Your task to perform on an android device: turn smart compose on in the gmail app Image 0: 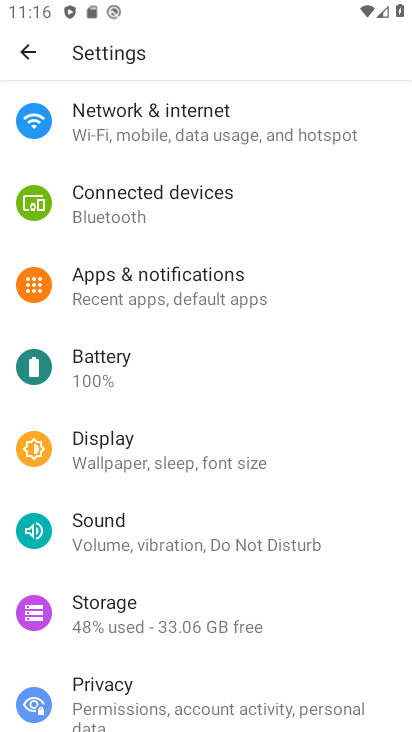
Step 0: press home button
Your task to perform on an android device: turn smart compose on in the gmail app Image 1: 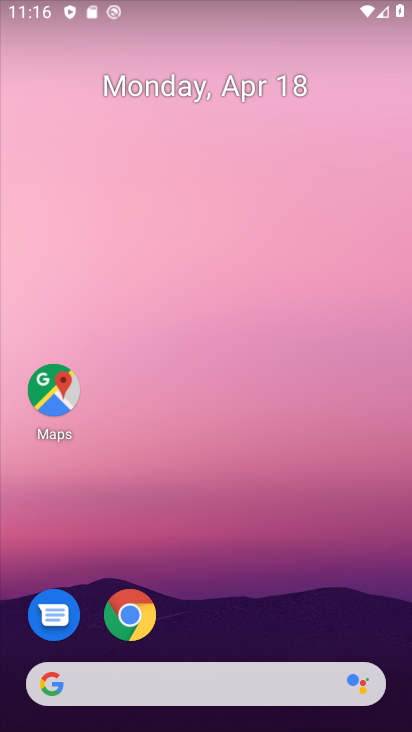
Step 1: drag from (216, 633) to (213, 190)
Your task to perform on an android device: turn smart compose on in the gmail app Image 2: 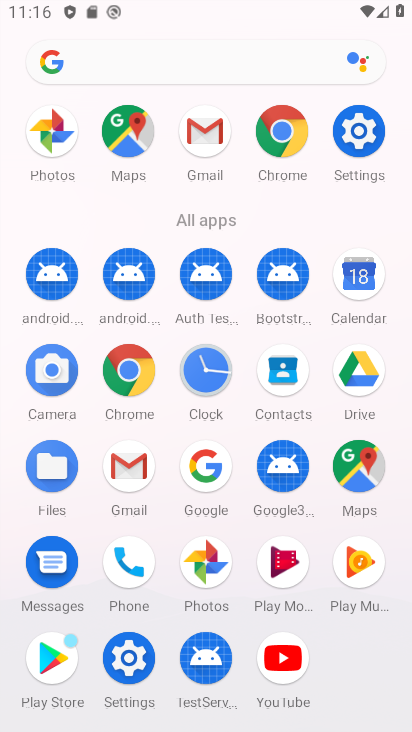
Step 2: click (217, 139)
Your task to perform on an android device: turn smart compose on in the gmail app Image 3: 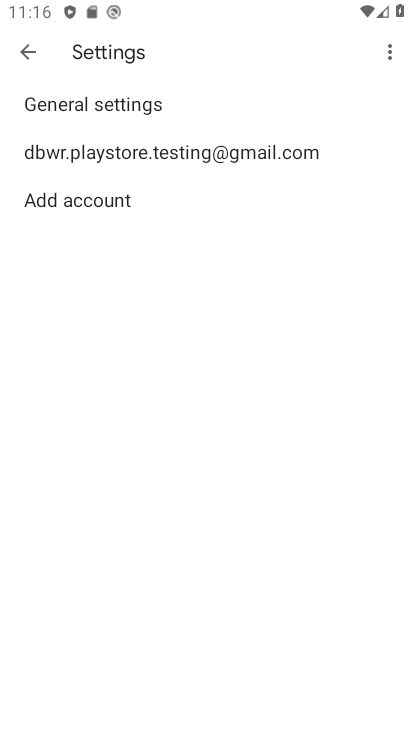
Step 3: click (201, 158)
Your task to perform on an android device: turn smart compose on in the gmail app Image 4: 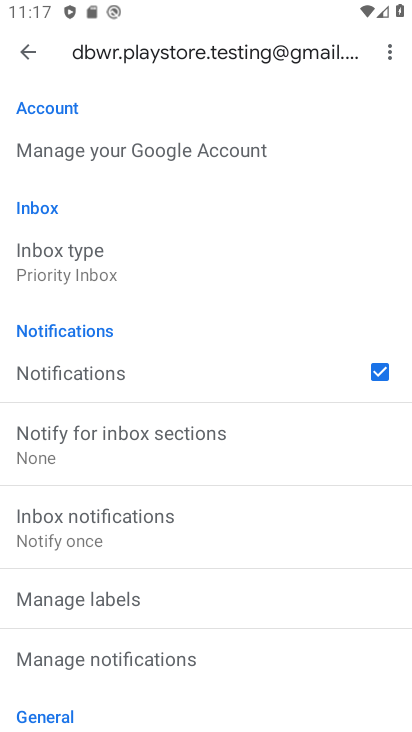
Step 4: task complete